Your task to perform on an android device: Go to wifi settings Image 0: 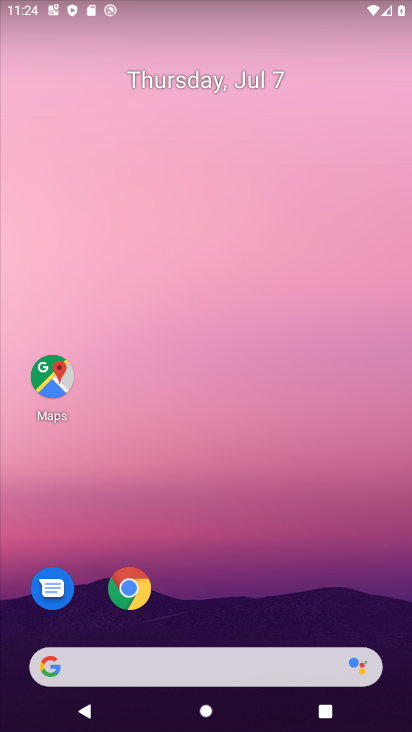
Step 0: drag from (193, 605) to (179, 83)
Your task to perform on an android device: Go to wifi settings Image 1: 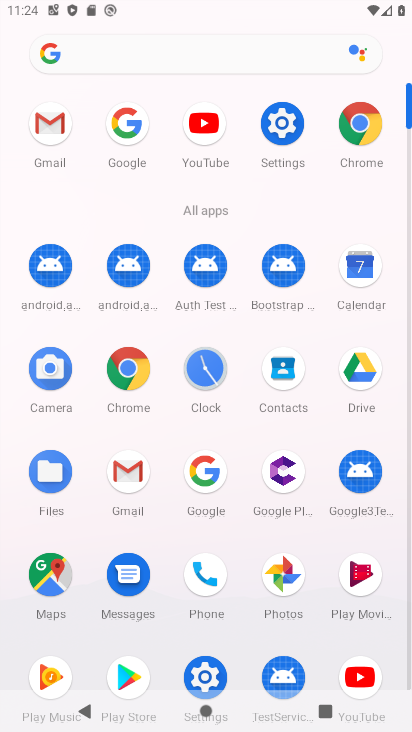
Step 1: click (284, 120)
Your task to perform on an android device: Go to wifi settings Image 2: 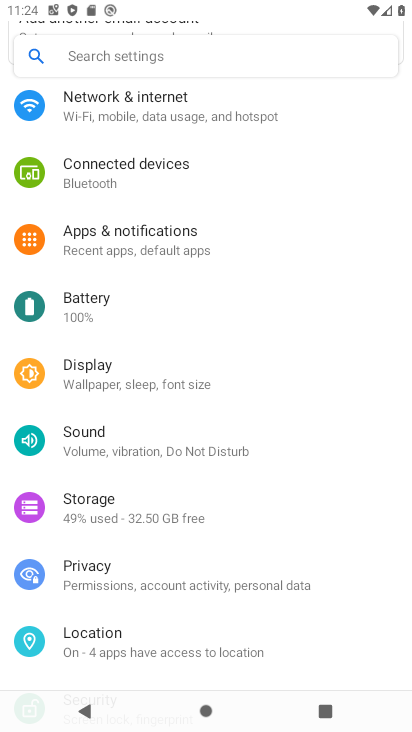
Step 2: drag from (149, 140) to (158, 480)
Your task to perform on an android device: Go to wifi settings Image 3: 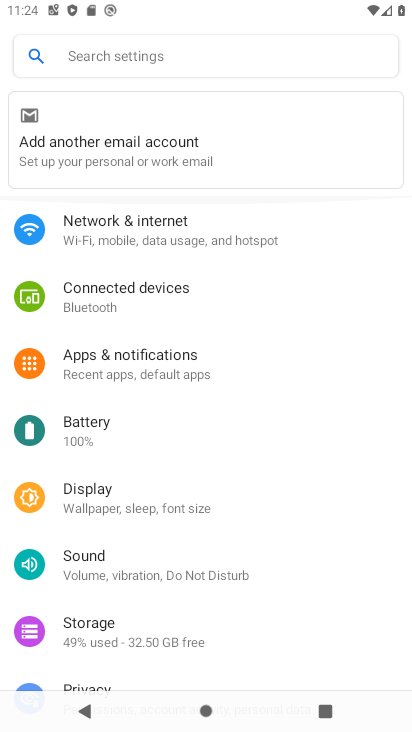
Step 3: click (165, 232)
Your task to perform on an android device: Go to wifi settings Image 4: 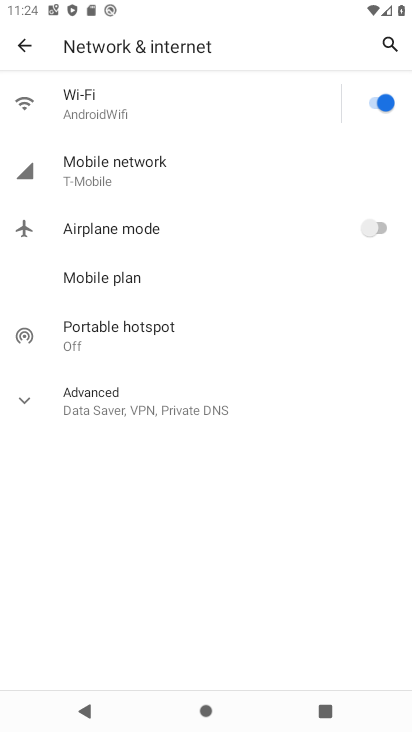
Step 4: click (158, 105)
Your task to perform on an android device: Go to wifi settings Image 5: 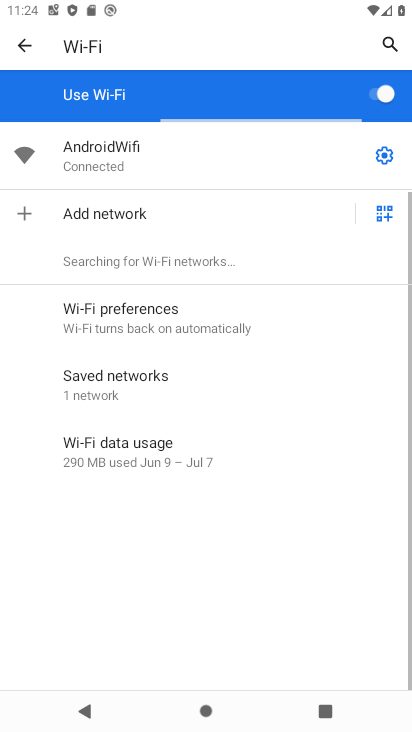
Step 5: click (382, 153)
Your task to perform on an android device: Go to wifi settings Image 6: 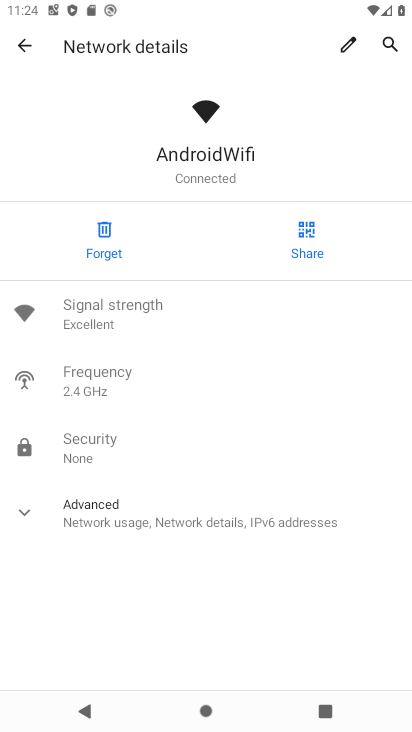
Step 6: task complete